Your task to perform on an android device: turn on location history Image 0: 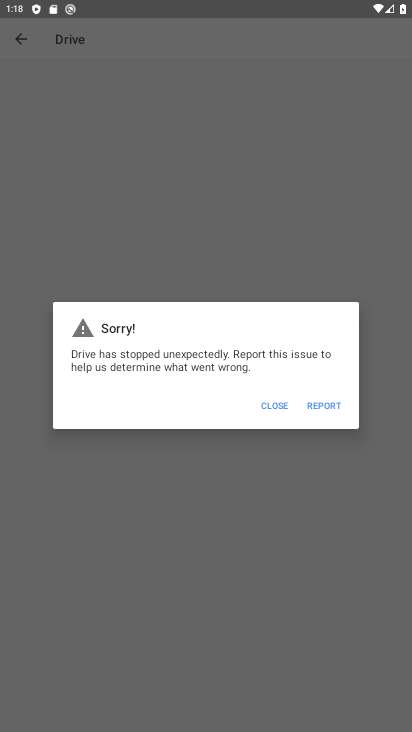
Step 0: press back button
Your task to perform on an android device: turn on location history Image 1: 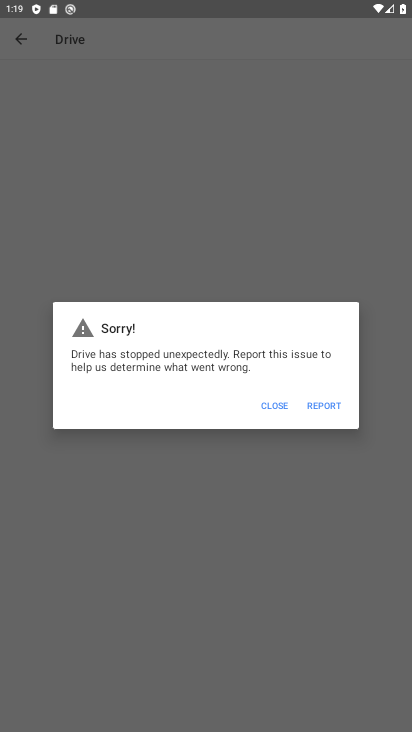
Step 1: press home button
Your task to perform on an android device: turn on location history Image 2: 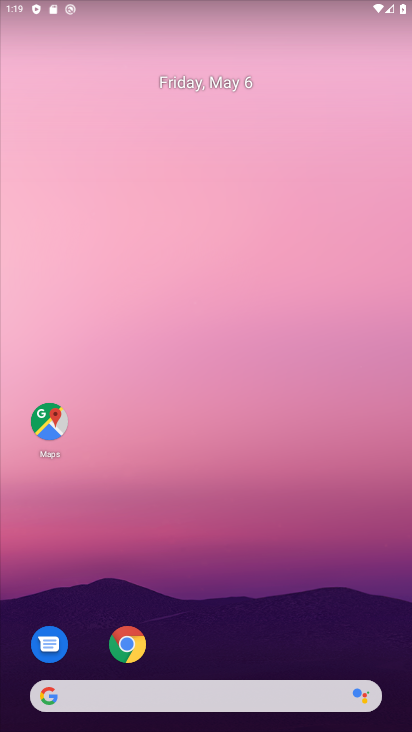
Step 2: drag from (250, 605) to (298, 26)
Your task to perform on an android device: turn on location history Image 3: 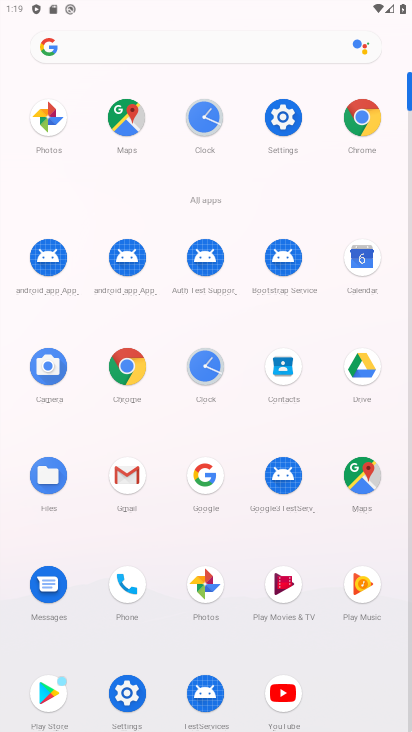
Step 3: click (283, 115)
Your task to perform on an android device: turn on location history Image 4: 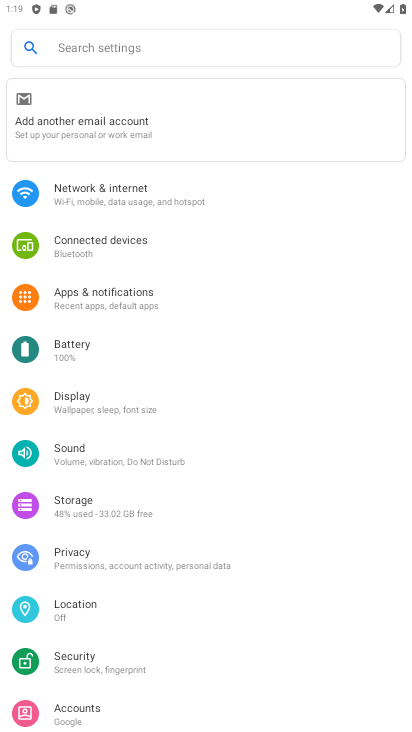
Step 4: click (104, 614)
Your task to perform on an android device: turn on location history Image 5: 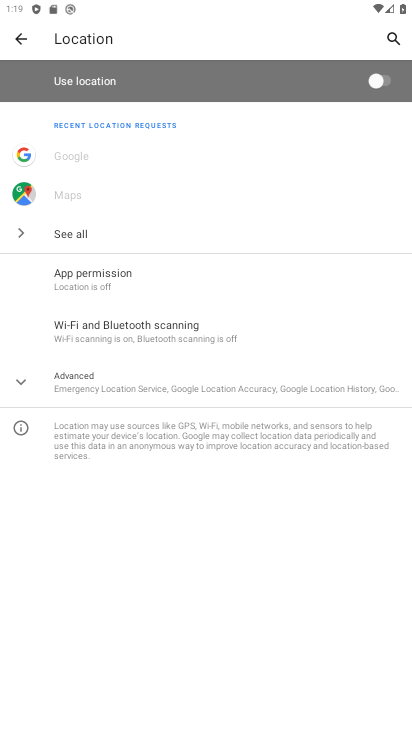
Step 5: click (99, 374)
Your task to perform on an android device: turn on location history Image 6: 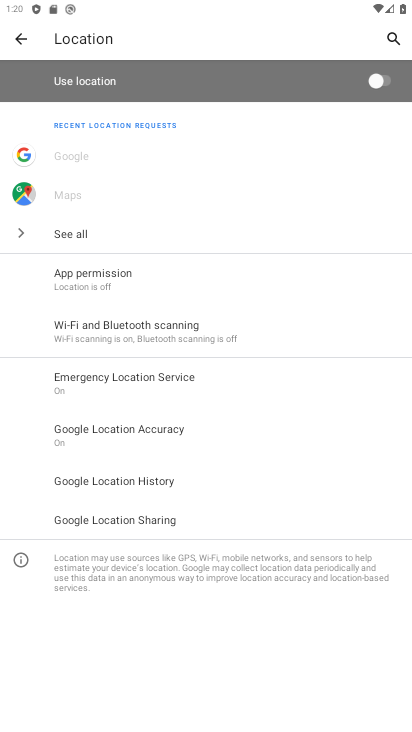
Step 6: click (161, 485)
Your task to perform on an android device: turn on location history Image 7: 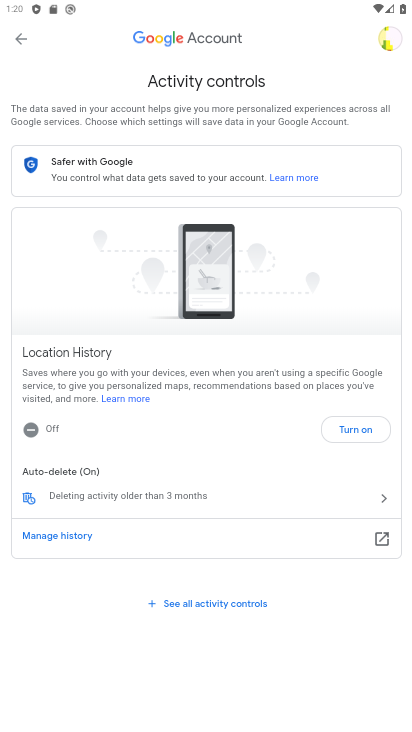
Step 7: click (346, 426)
Your task to perform on an android device: turn on location history Image 8: 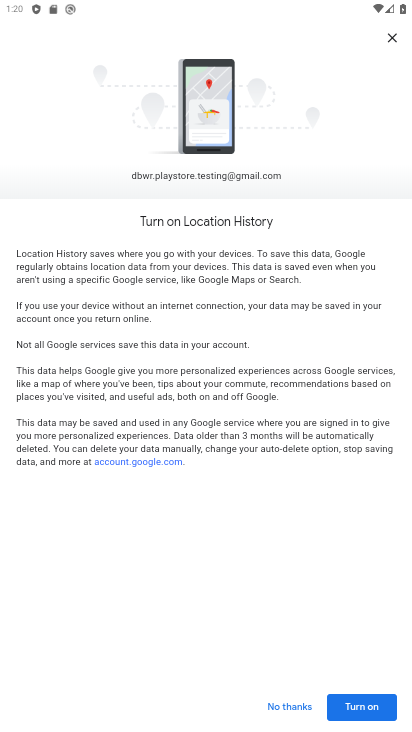
Step 8: drag from (278, 614) to (268, 119)
Your task to perform on an android device: turn on location history Image 9: 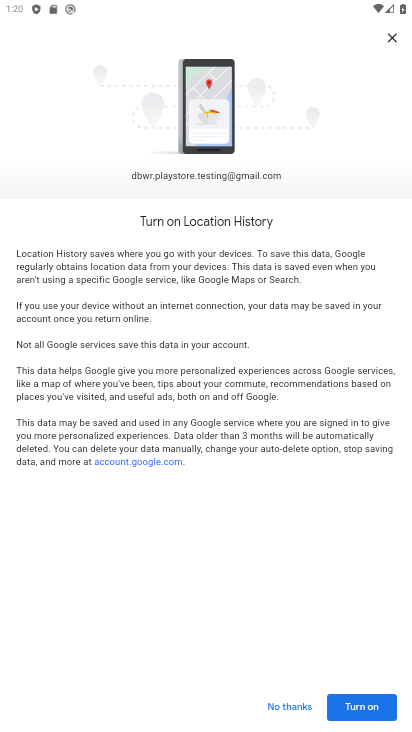
Step 9: click (361, 707)
Your task to perform on an android device: turn on location history Image 10: 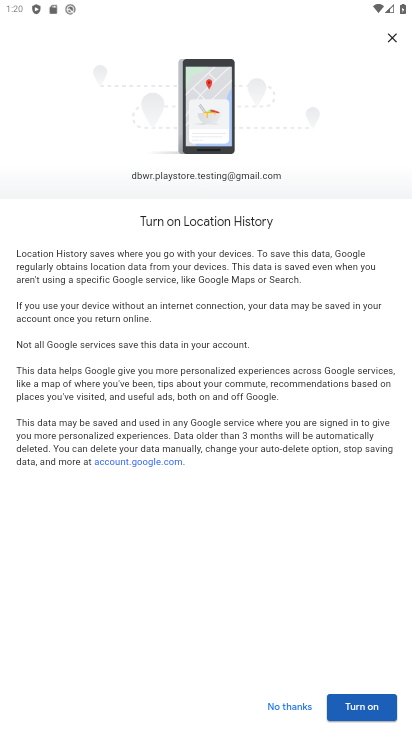
Step 10: click (362, 707)
Your task to perform on an android device: turn on location history Image 11: 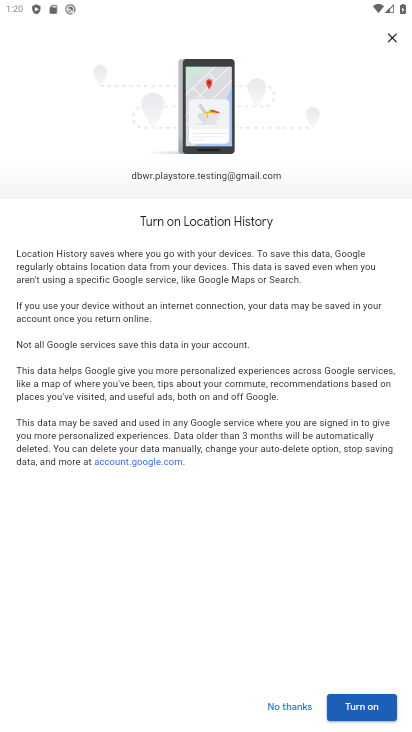
Step 11: click (362, 707)
Your task to perform on an android device: turn on location history Image 12: 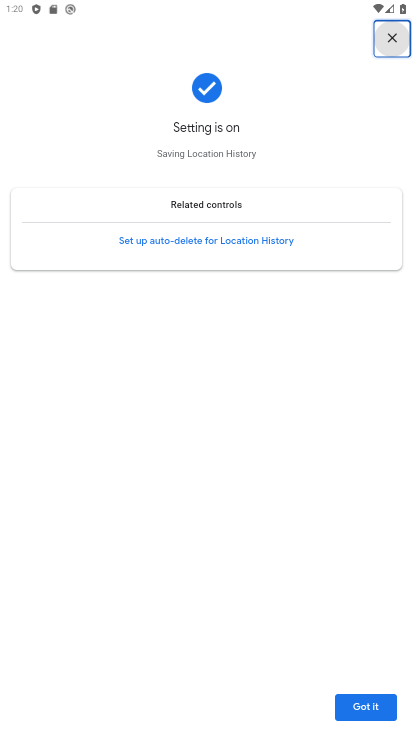
Step 12: click (354, 699)
Your task to perform on an android device: turn on location history Image 13: 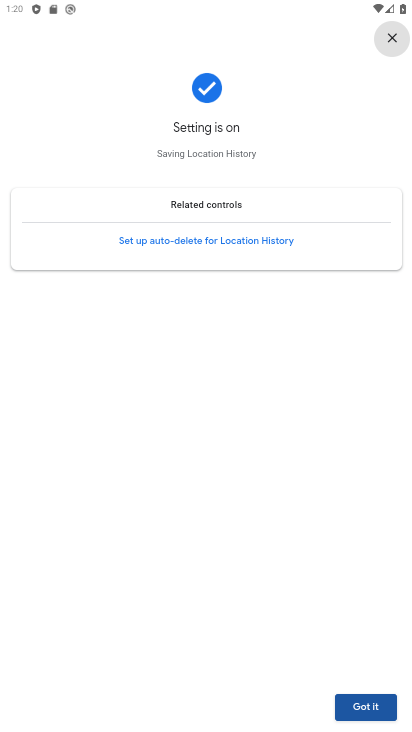
Step 13: task complete